Your task to perform on an android device: Open maps Image 0: 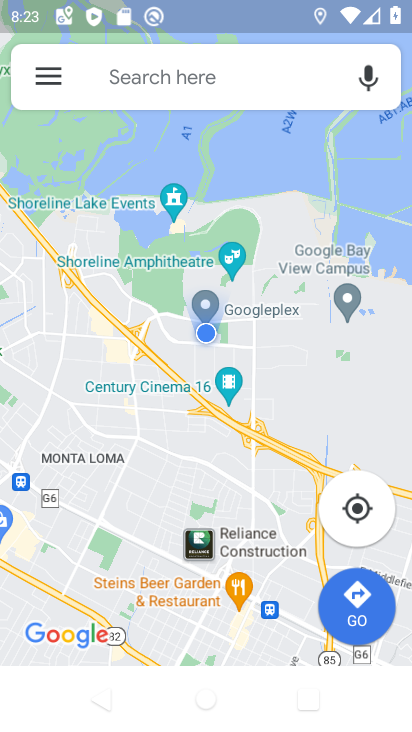
Step 0: task complete